Your task to perform on an android device: turn on translation in the chrome app Image 0: 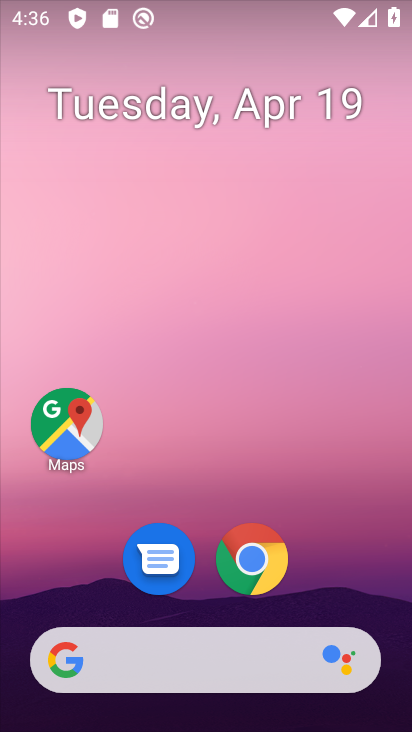
Step 0: click (249, 548)
Your task to perform on an android device: turn on translation in the chrome app Image 1: 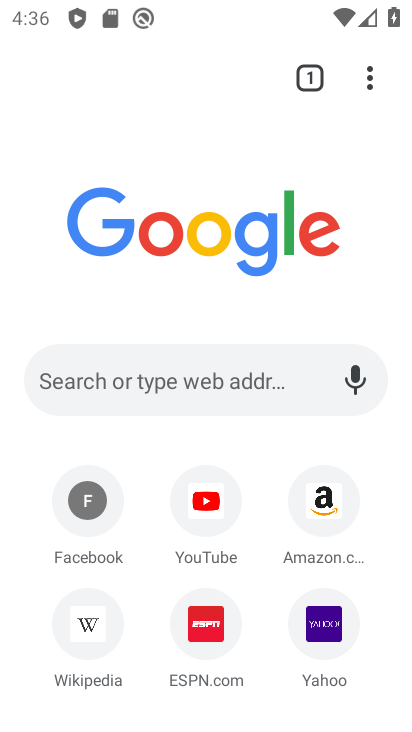
Step 1: click (368, 79)
Your task to perform on an android device: turn on translation in the chrome app Image 2: 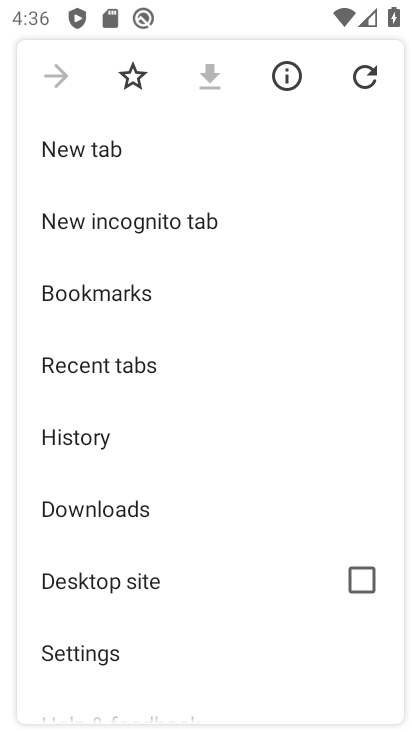
Step 2: drag from (184, 496) to (151, 183)
Your task to perform on an android device: turn on translation in the chrome app Image 3: 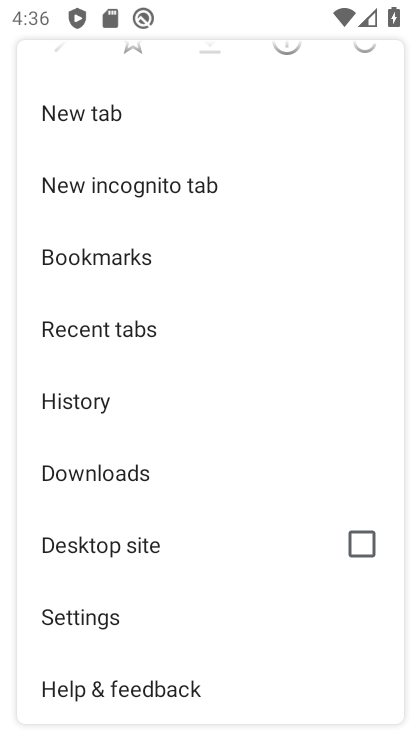
Step 3: click (116, 630)
Your task to perform on an android device: turn on translation in the chrome app Image 4: 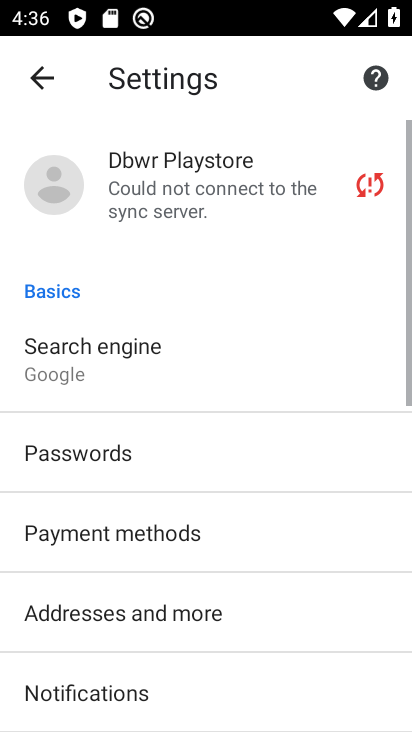
Step 4: drag from (116, 630) to (71, 327)
Your task to perform on an android device: turn on translation in the chrome app Image 5: 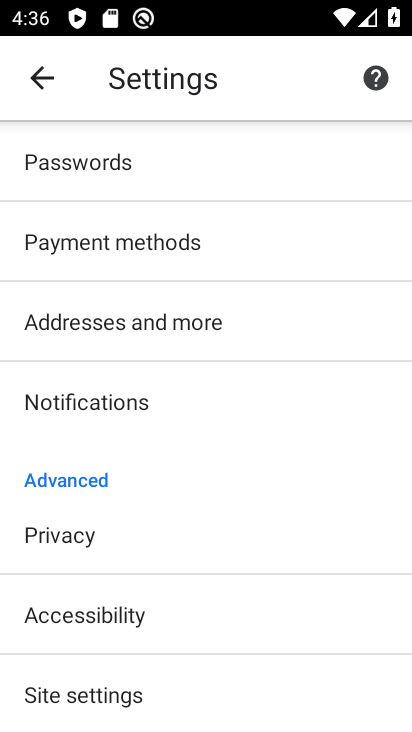
Step 5: drag from (72, 519) to (78, 287)
Your task to perform on an android device: turn on translation in the chrome app Image 6: 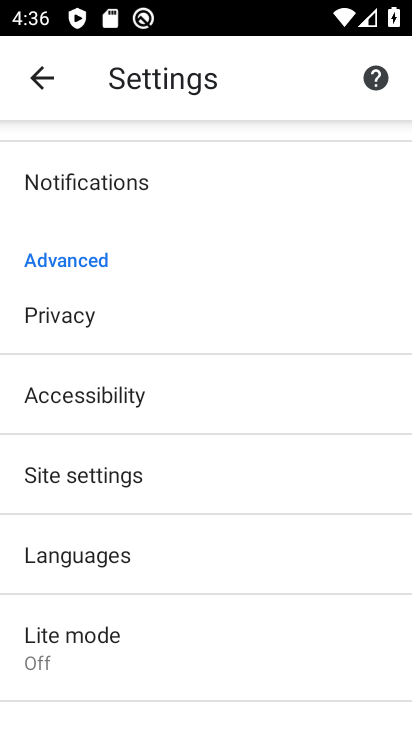
Step 6: click (204, 570)
Your task to perform on an android device: turn on translation in the chrome app Image 7: 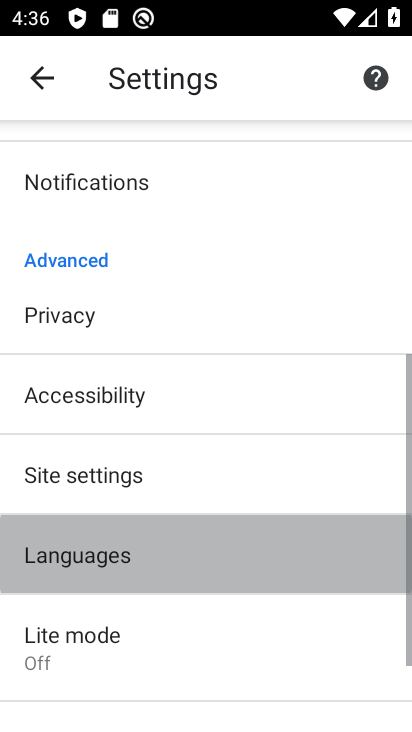
Step 7: drag from (180, 530) to (182, 357)
Your task to perform on an android device: turn on translation in the chrome app Image 8: 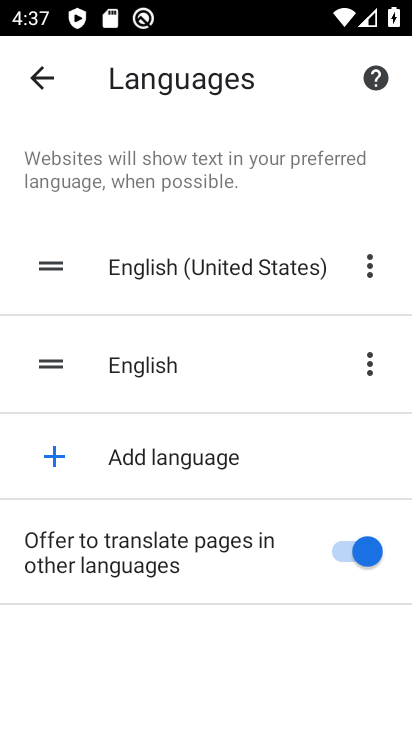
Step 8: click (29, 87)
Your task to perform on an android device: turn on translation in the chrome app Image 9: 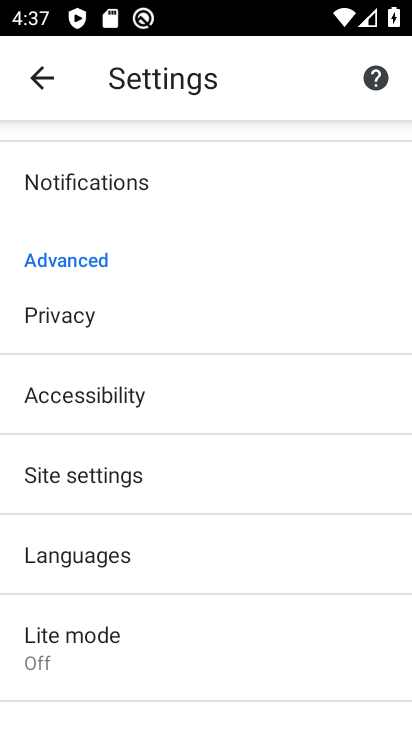
Step 9: click (129, 569)
Your task to perform on an android device: turn on translation in the chrome app Image 10: 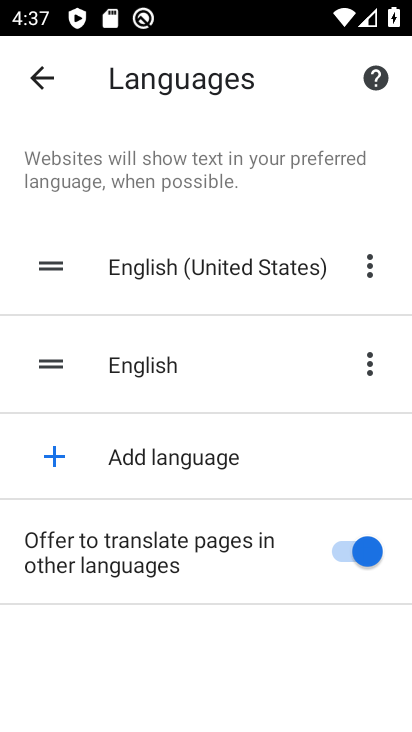
Step 10: click (351, 547)
Your task to perform on an android device: turn on translation in the chrome app Image 11: 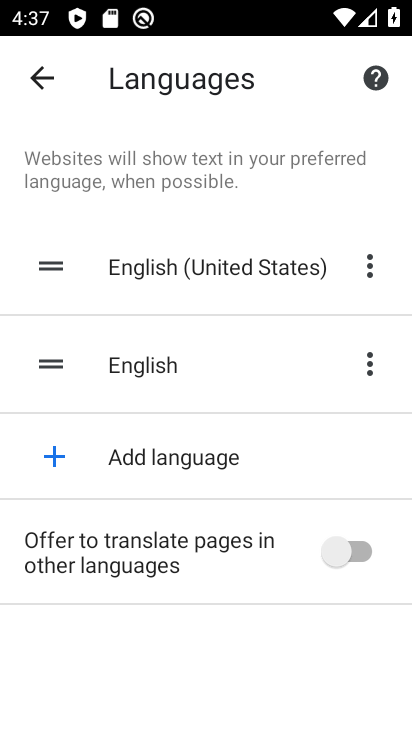
Step 11: task complete